Your task to perform on an android device: set the timer Image 0: 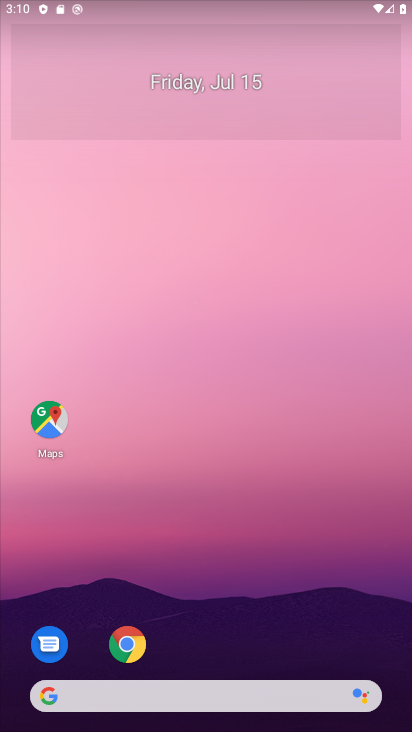
Step 0: drag from (191, 672) to (200, 154)
Your task to perform on an android device: set the timer Image 1: 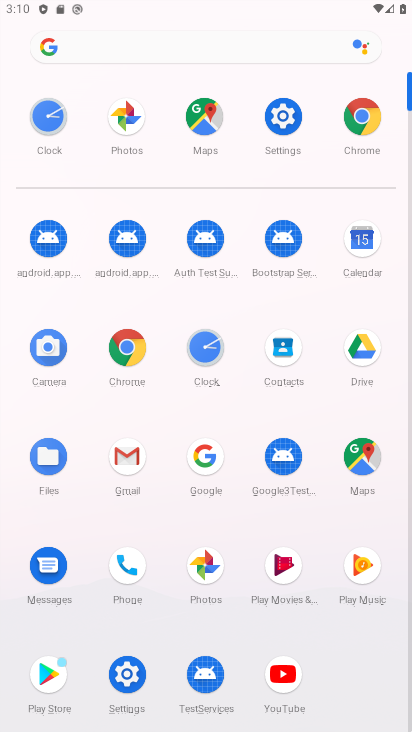
Step 1: click (205, 359)
Your task to perform on an android device: set the timer Image 2: 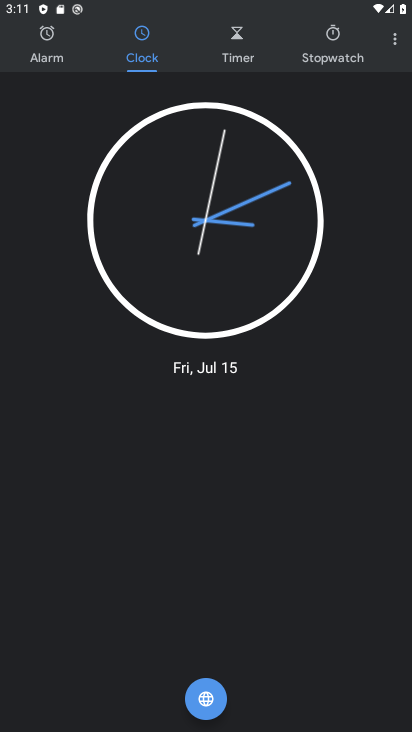
Step 2: click (248, 40)
Your task to perform on an android device: set the timer Image 3: 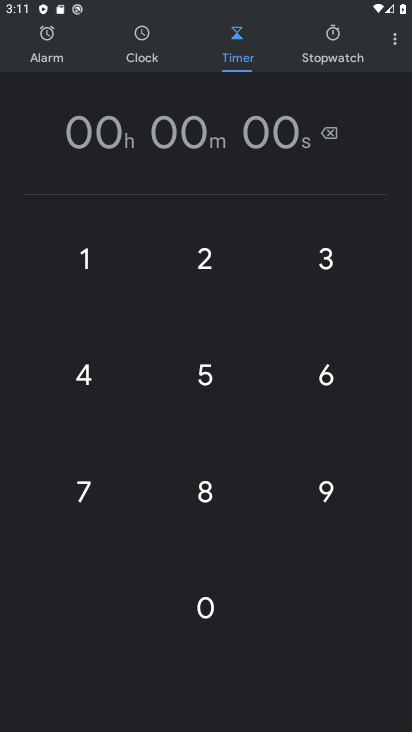
Step 3: click (216, 487)
Your task to perform on an android device: set the timer Image 4: 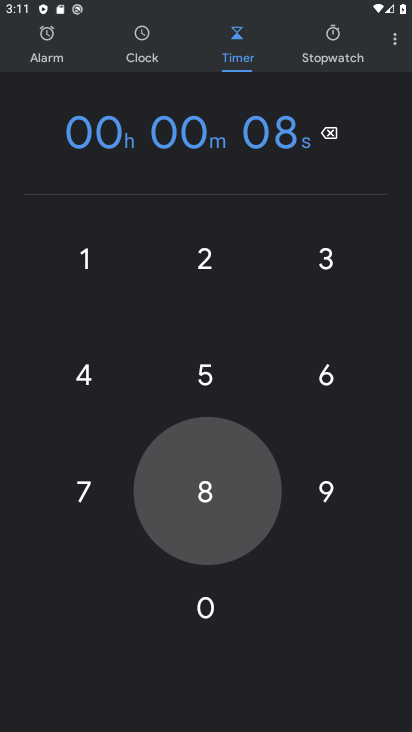
Step 4: click (205, 383)
Your task to perform on an android device: set the timer Image 5: 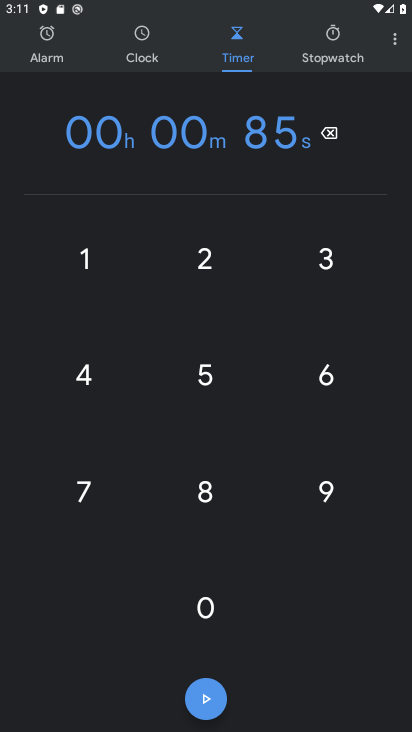
Step 5: click (217, 269)
Your task to perform on an android device: set the timer Image 6: 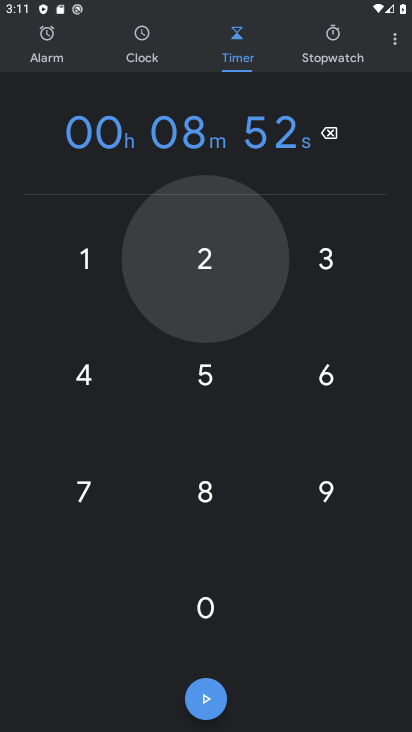
Step 6: click (322, 251)
Your task to perform on an android device: set the timer Image 7: 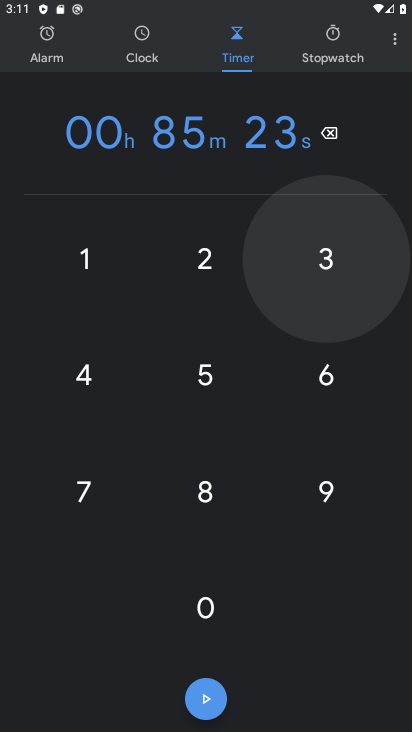
Step 7: click (78, 273)
Your task to perform on an android device: set the timer Image 8: 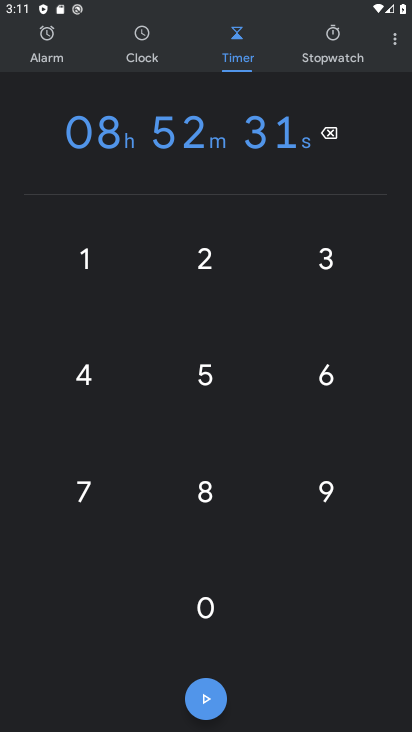
Step 8: click (192, 371)
Your task to perform on an android device: set the timer Image 9: 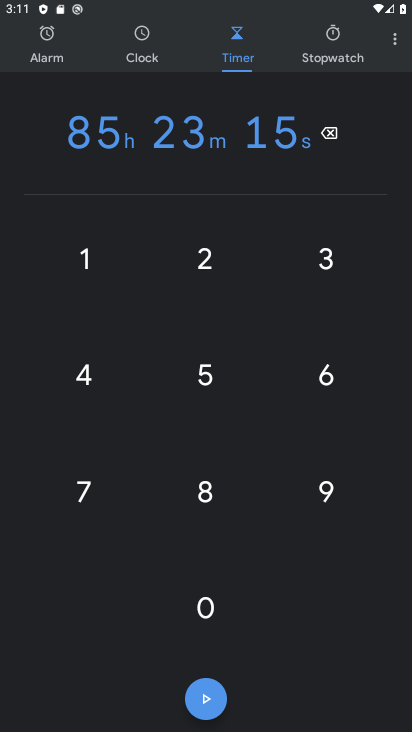
Step 9: click (202, 695)
Your task to perform on an android device: set the timer Image 10: 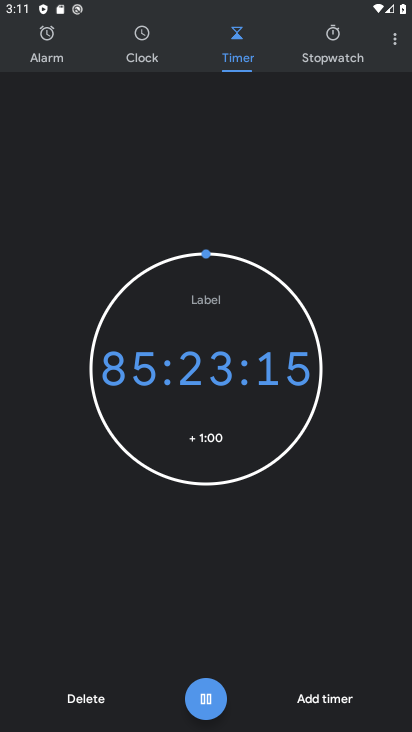
Step 10: task complete